Your task to perform on an android device: Go to accessibility settings Image 0: 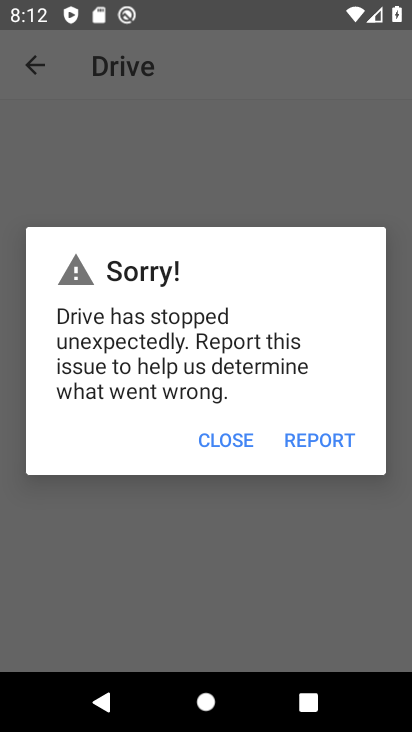
Step 0: press home button
Your task to perform on an android device: Go to accessibility settings Image 1: 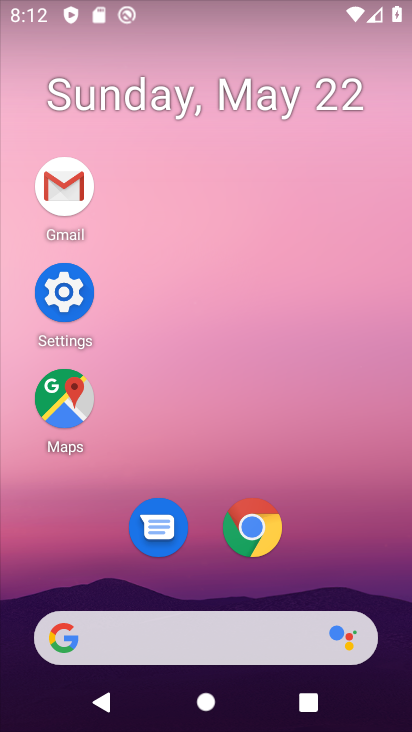
Step 1: click (81, 290)
Your task to perform on an android device: Go to accessibility settings Image 2: 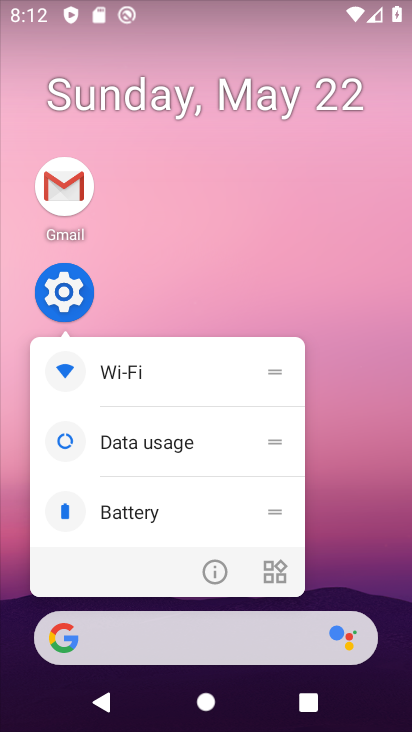
Step 2: click (64, 291)
Your task to perform on an android device: Go to accessibility settings Image 3: 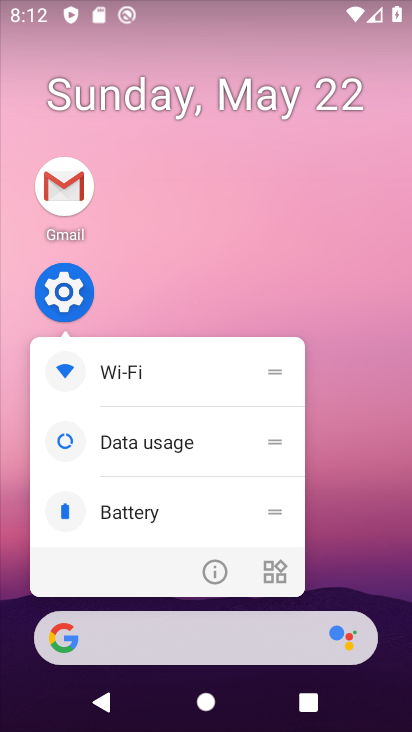
Step 3: click (72, 304)
Your task to perform on an android device: Go to accessibility settings Image 4: 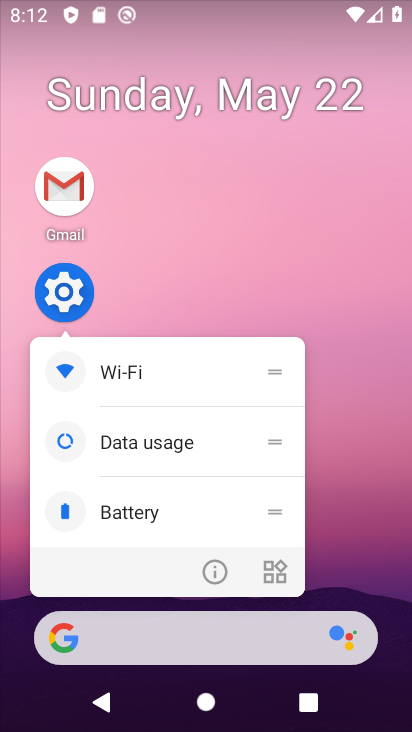
Step 4: click (72, 304)
Your task to perform on an android device: Go to accessibility settings Image 5: 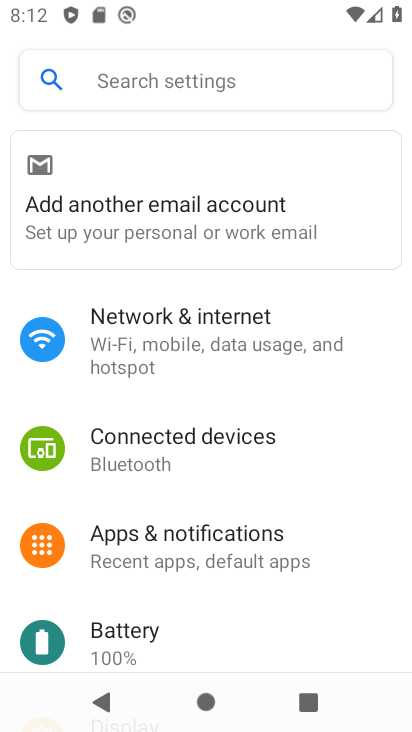
Step 5: drag from (252, 598) to (221, 43)
Your task to perform on an android device: Go to accessibility settings Image 6: 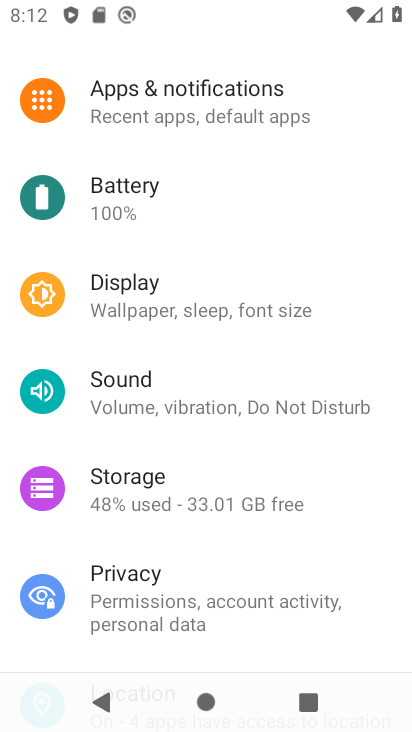
Step 6: drag from (241, 592) to (276, 157)
Your task to perform on an android device: Go to accessibility settings Image 7: 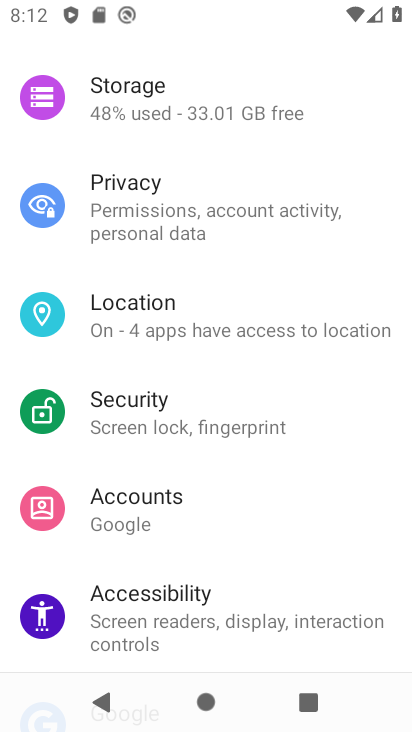
Step 7: click (169, 610)
Your task to perform on an android device: Go to accessibility settings Image 8: 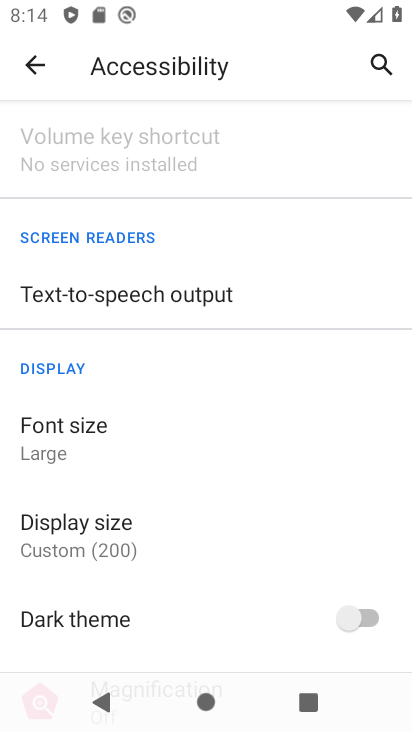
Step 8: task complete